Your task to perform on an android device: open app "NewsBreak: Local News & Alerts" (install if not already installed) Image 0: 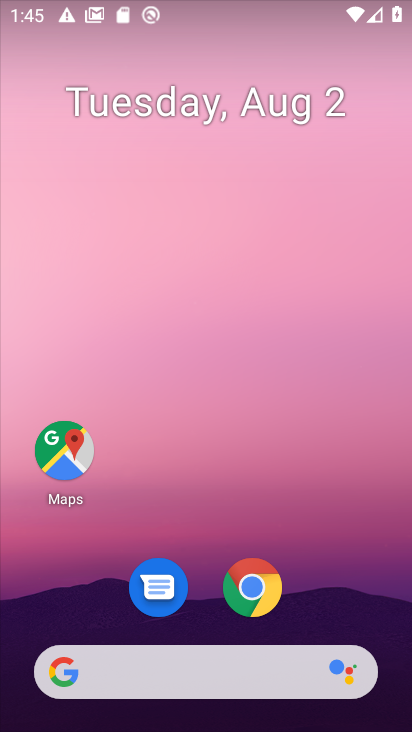
Step 0: drag from (202, 546) to (251, 84)
Your task to perform on an android device: open app "NewsBreak: Local News & Alerts" (install if not already installed) Image 1: 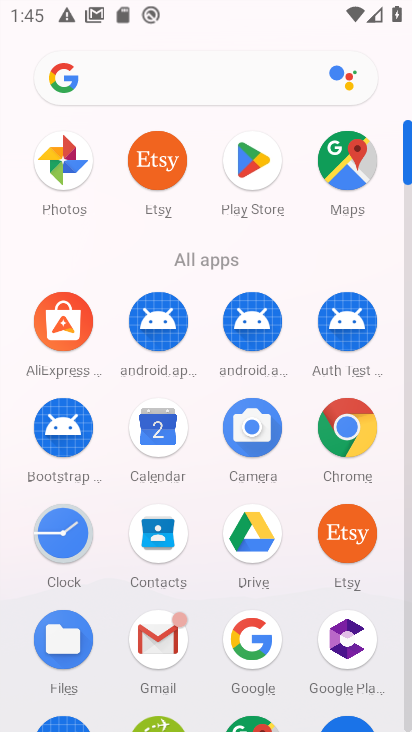
Step 1: click (280, 170)
Your task to perform on an android device: open app "NewsBreak: Local News & Alerts" (install if not already installed) Image 2: 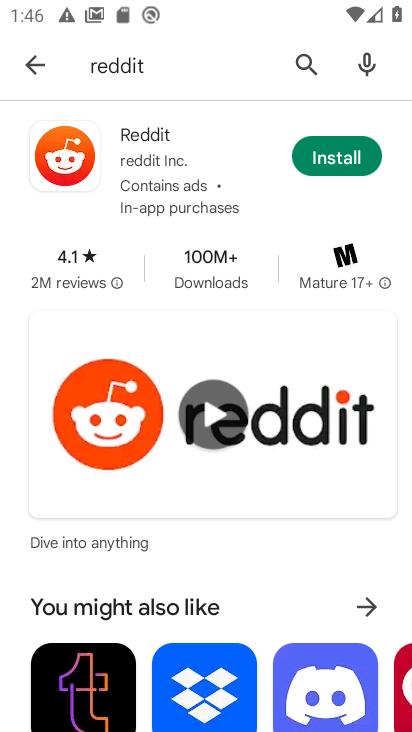
Step 2: click (308, 51)
Your task to perform on an android device: open app "NewsBreak: Local News & Alerts" (install if not already installed) Image 3: 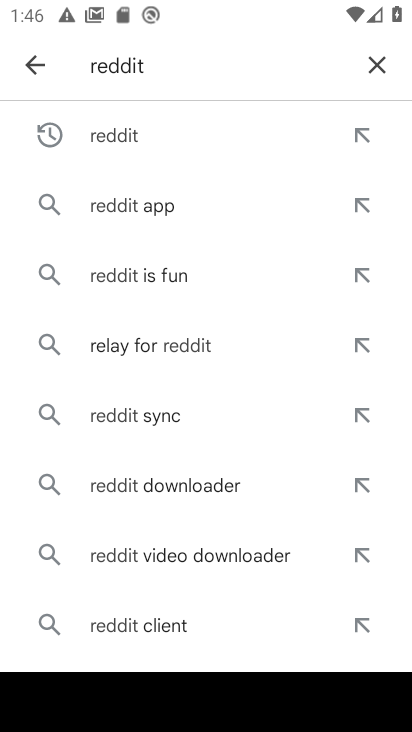
Step 3: click (375, 68)
Your task to perform on an android device: open app "NewsBreak: Local News & Alerts" (install if not already installed) Image 4: 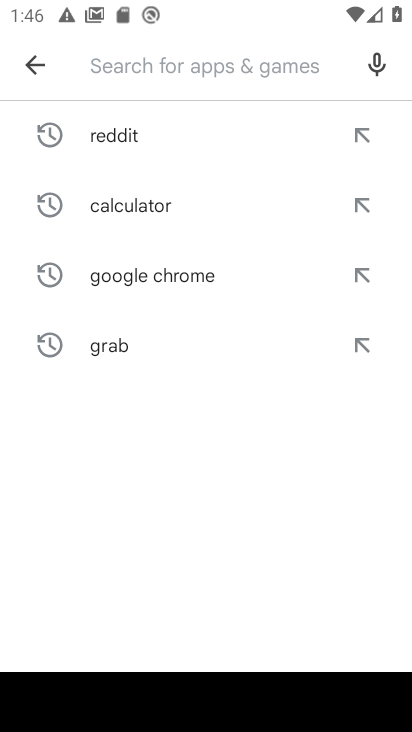
Step 4: type "NewsBreak: Local News & Alerts"
Your task to perform on an android device: open app "NewsBreak: Local News & Alerts" (install if not already installed) Image 5: 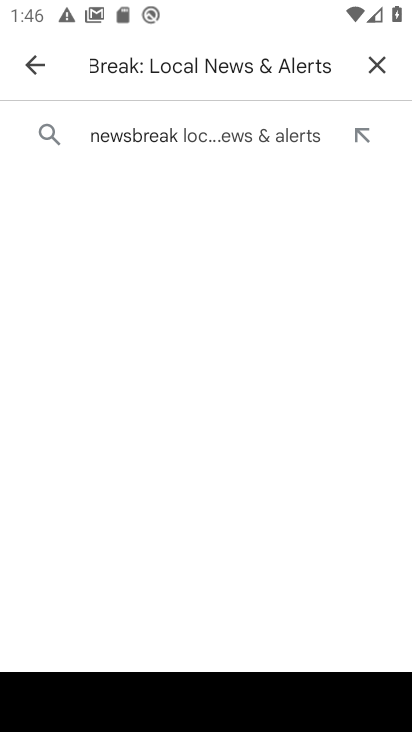
Step 5: click (192, 139)
Your task to perform on an android device: open app "NewsBreak: Local News & Alerts" (install if not already installed) Image 6: 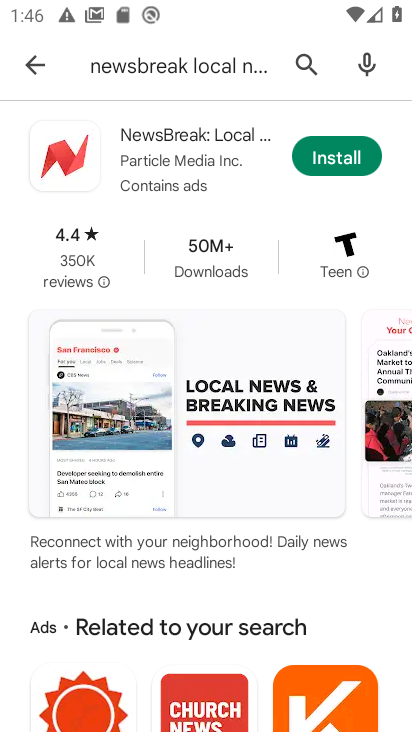
Step 6: click (324, 155)
Your task to perform on an android device: open app "NewsBreak: Local News & Alerts" (install if not already installed) Image 7: 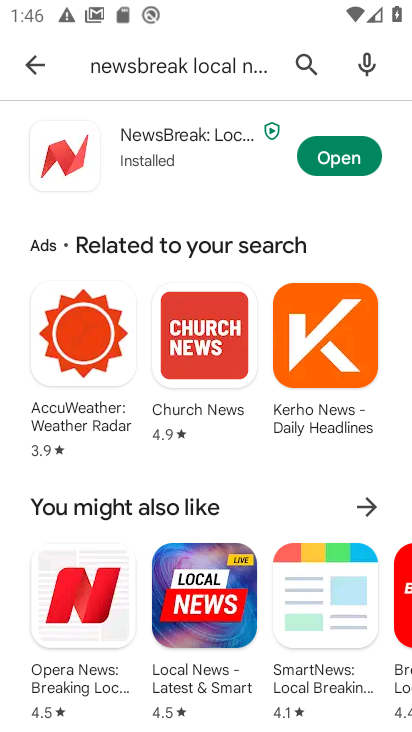
Step 7: click (325, 152)
Your task to perform on an android device: open app "NewsBreak: Local News & Alerts" (install if not already installed) Image 8: 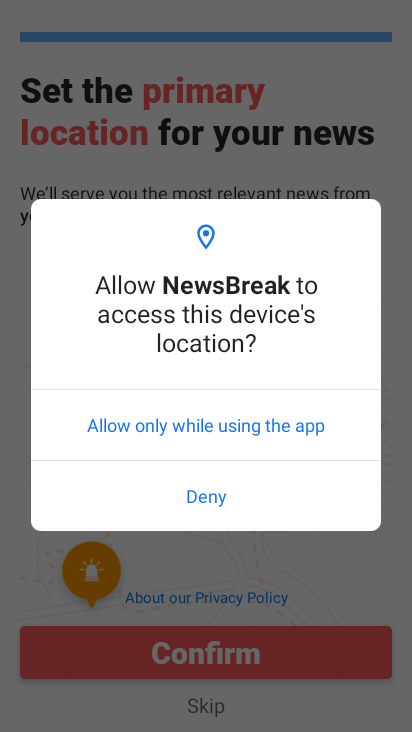
Step 8: task complete